Your task to perform on an android device: Search for seafood restaurants on Google Maps Image 0: 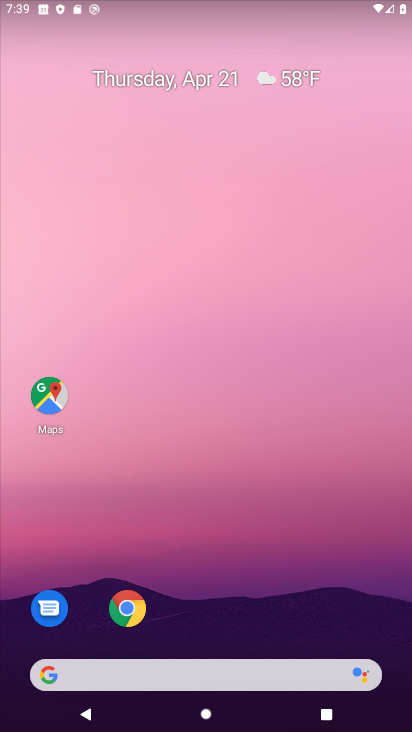
Step 0: click (52, 399)
Your task to perform on an android device: Search for seafood restaurants on Google Maps Image 1: 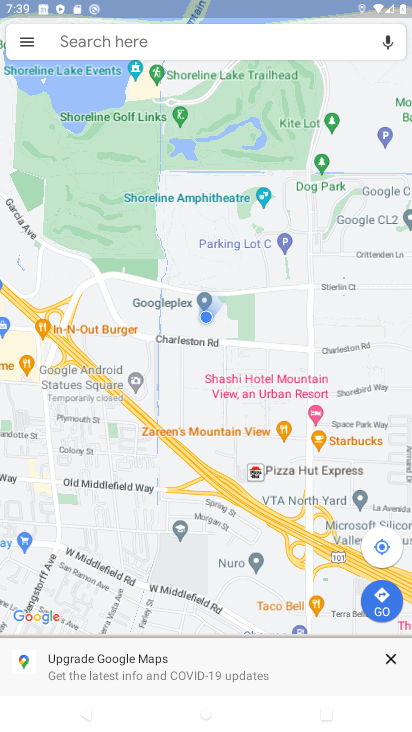
Step 1: click (254, 38)
Your task to perform on an android device: Search for seafood restaurants on Google Maps Image 2: 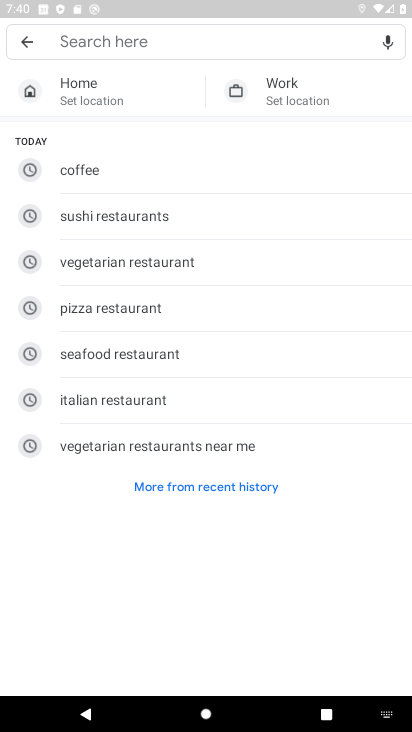
Step 2: click (155, 343)
Your task to perform on an android device: Search for seafood restaurants on Google Maps Image 3: 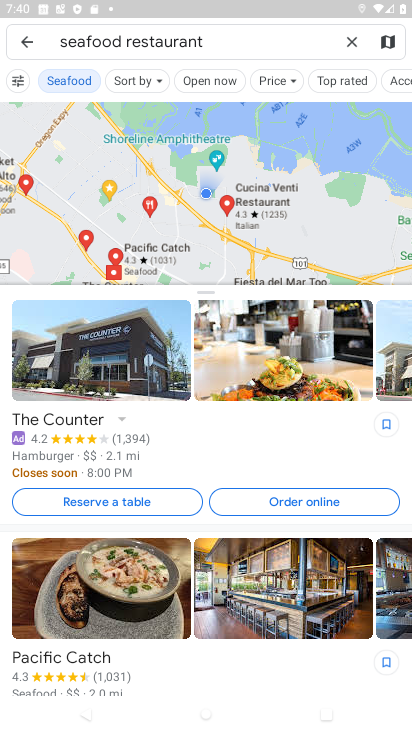
Step 3: task complete